Your task to perform on an android device: Open calendar and show me the second week of next month Image 0: 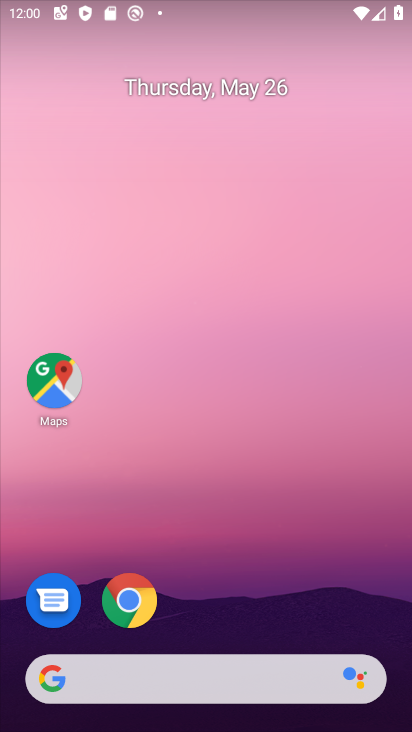
Step 0: drag from (299, 552) to (317, 73)
Your task to perform on an android device: Open calendar and show me the second week of next month Image 1: 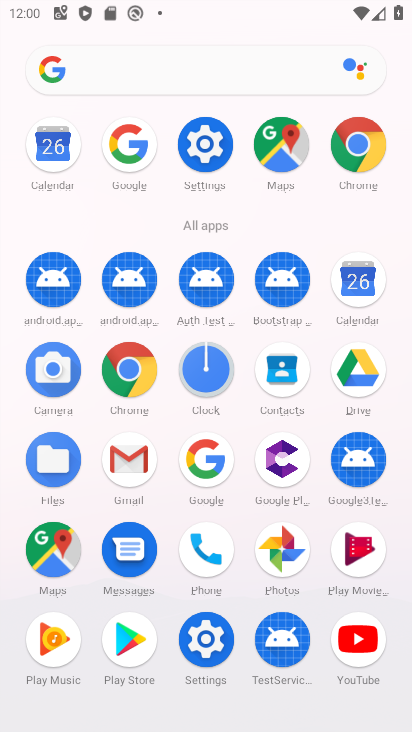
Step 1: click (364, 278)
Your task to perform on an android device: Open calendar and show me the second week of next month Image 2: 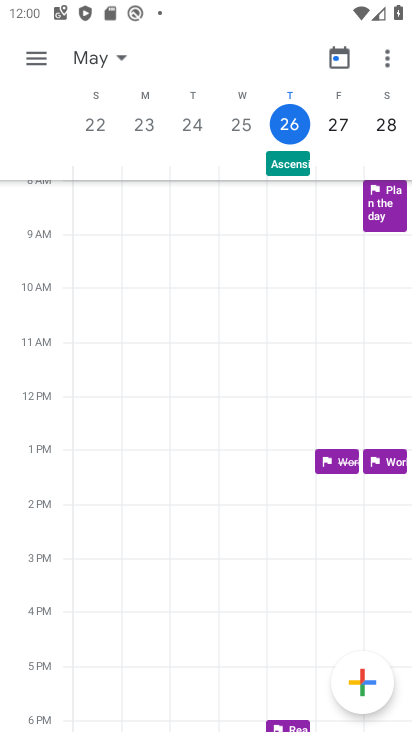
Step 2: click (117, 56)
Your task to perform on an android device: Open calendar and show me the second week of next month Image 3: 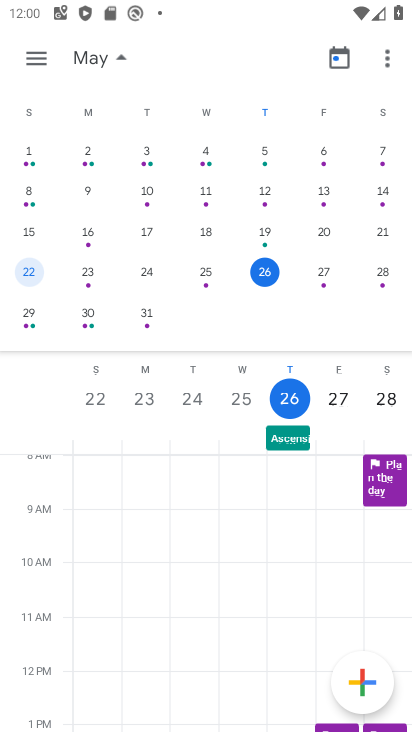
Step 3: drag from (367, 278) to (0, 245)
Your task to perform on an android device: Open calendar and show me the second week of next month Image 4: 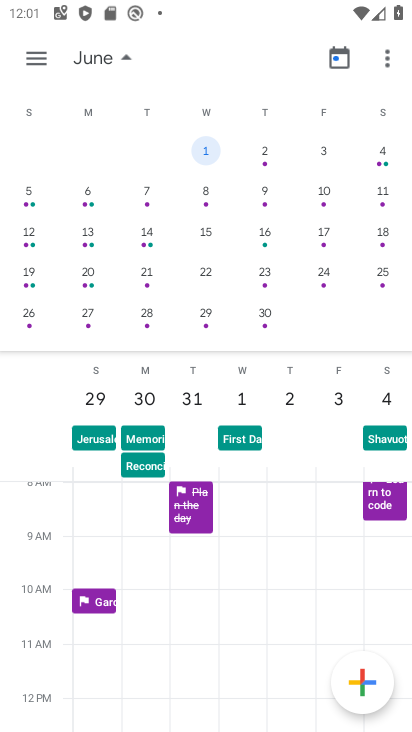
Step 4: click (32, 239)
Your task to perform on an android device: Open calendar and show me the second week of next month Image 5: 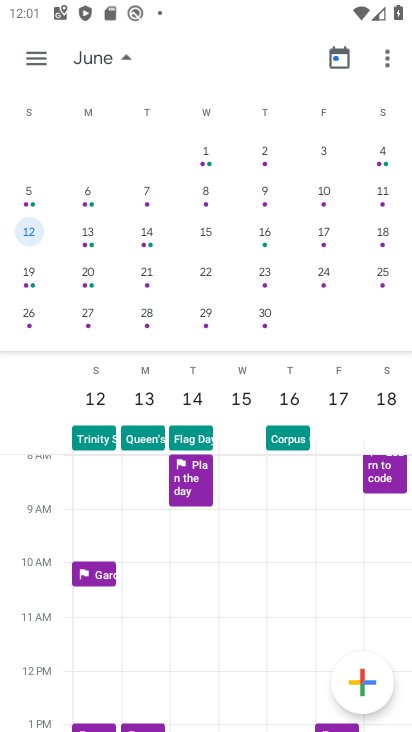
Step 5: task complete